Your task to perform on an android device: Empty the shopping cart on newegg.com. Image 0: 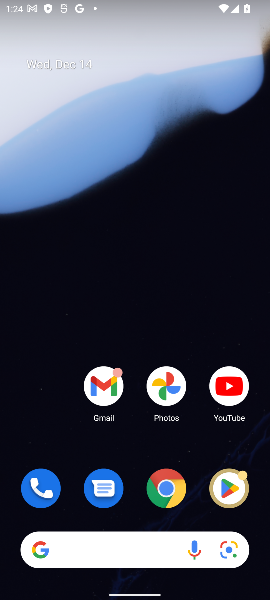
Step 0: drag from (126, 547) to (124, 144)
Your task to perform on an android device: Empty the shopping cart on newegg.com. Image 1: 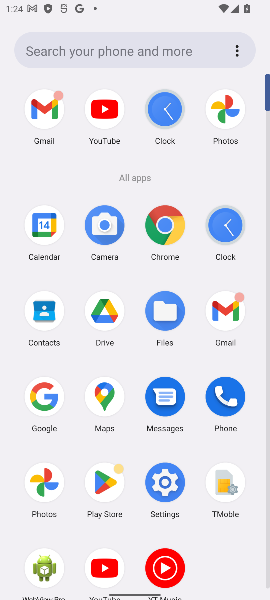
Step 1: click (45, 397)
Your task to perform on an android device: Empty the shopping cart on newegg.com. Image 2: 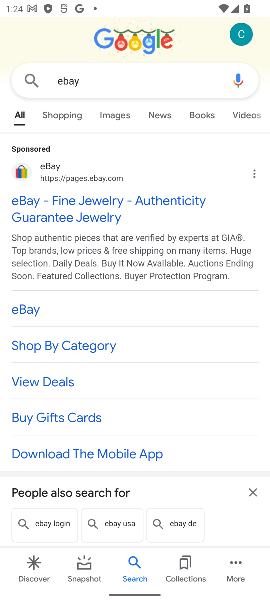
Step 2: click (85, 82)
Your task to perform on an android device: Empty the shopping cart on newegg.com. Image 3: 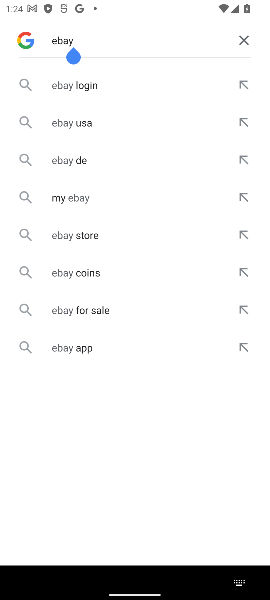
Step 3: click (238, 43)
Your task to perform on an android device: Empty the shopping cart on newegg.com. Image 4: 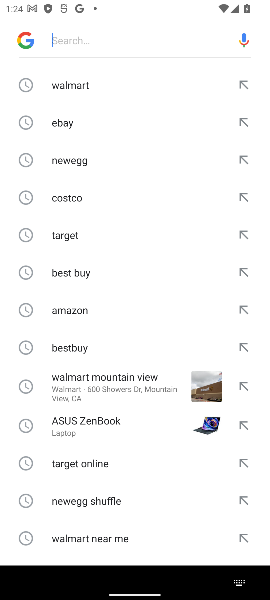
Step 4: click (63, 162)
Your task to perform on an android device: Empty the shopping cart on newegg.com. Image 5: 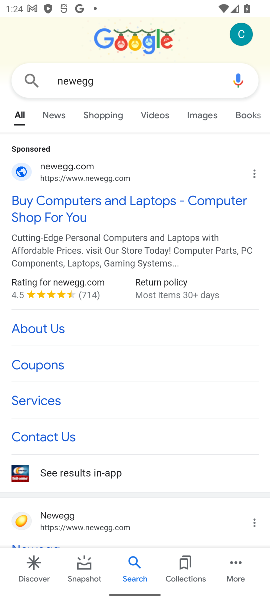
Step 5: click (66, 207)
Your task to perform on an android device: Empty the shopping cart on newegg.com. Image 6: 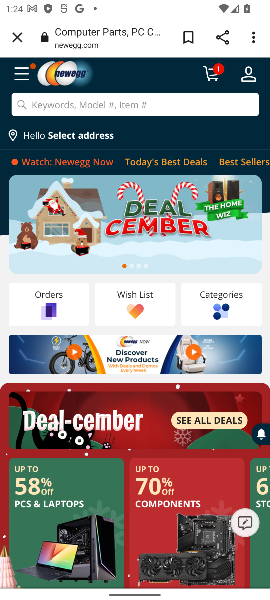
Step 6: click (211, 75)
Your task to perform on an android device: Empty the shopping cart on newegg.com. Image 7: 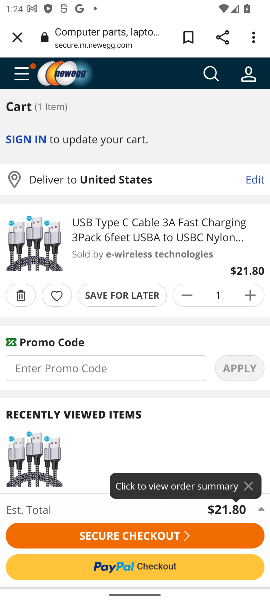
Step 7: click (24, 291)
Your task to perform on an android device: Empty the shopping cart on newegg.com. Image 8: 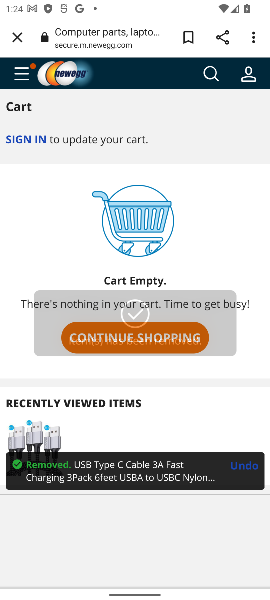
Step 8: task complete